Your task to perform on an android device: Open notification settings Image 0: 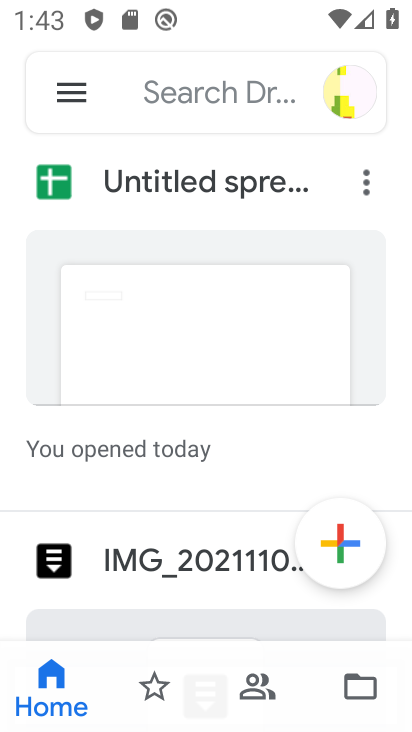
Step 0: press home button
Your task to perform on an android device: Open notification settings Image 1: 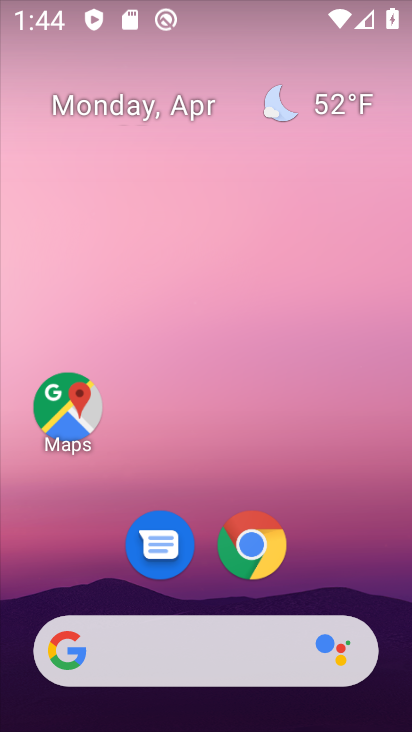
Step 1: drag from (229, 709) to (174, 212)
Your task to perform on an android device: Open notification settings Image 2: 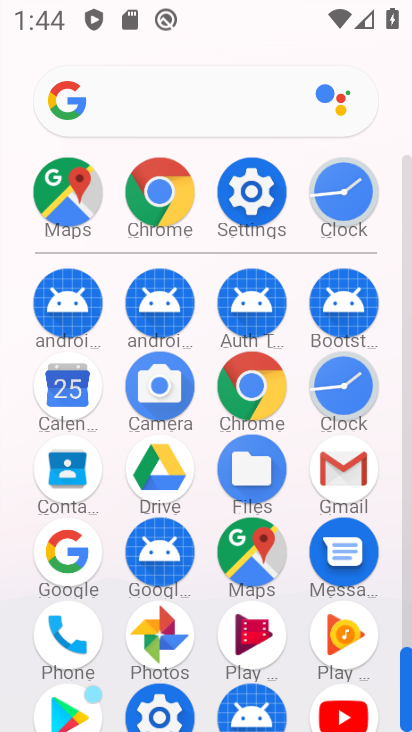
Step 2: click (255, 192)
Your task to perform on an android device: Open notification settings Image 3: 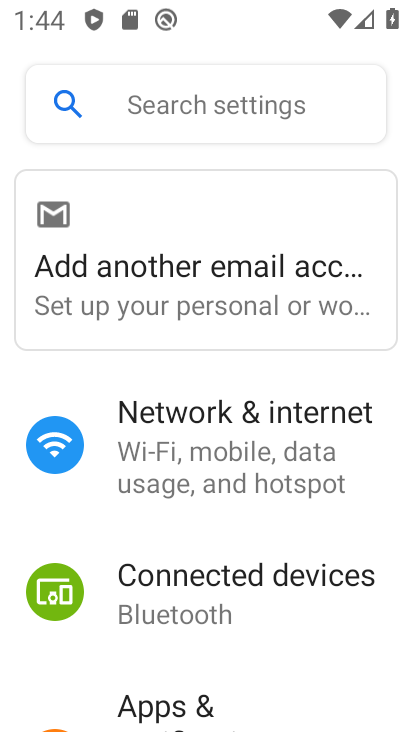
Step 3: drag from (186, 629) to (184, 357)
Your task to perform on an android device: Open notification settings Image 4: 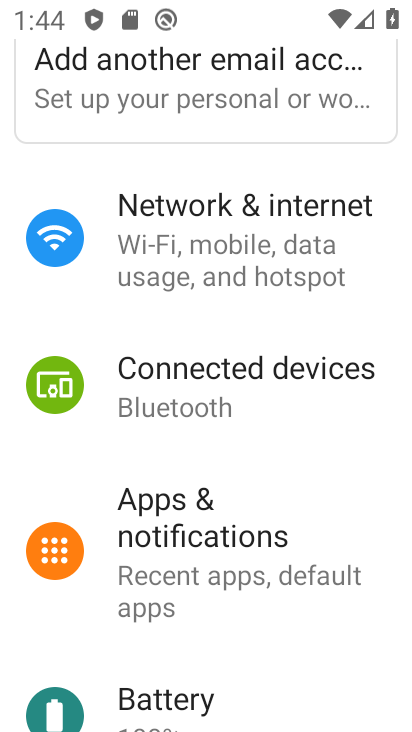
Step 4: click (173, 520)
Your task to perform on an android device: Open notification settings Image 5: 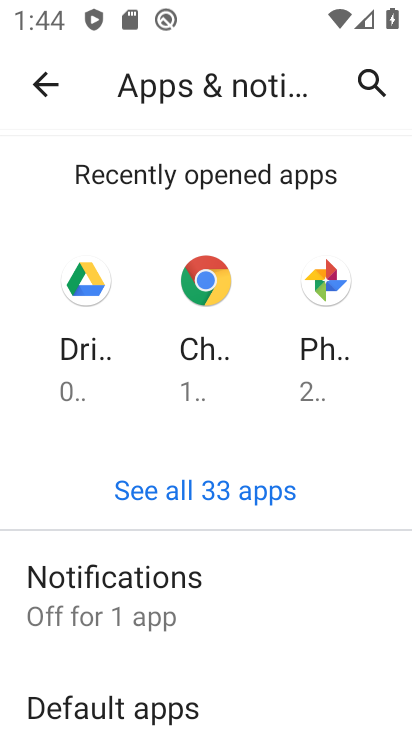
Step 5: click (140, 586)
Your task to perform on an android device: Open notification settings Image 6: 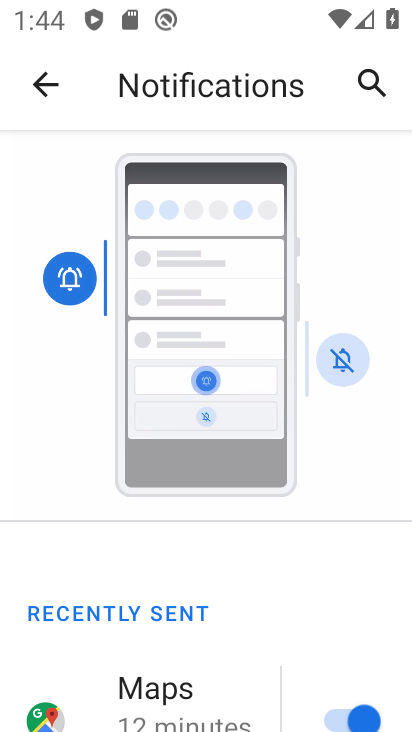
Step 6: task complete